Your task to perform on an android device: Open CNN.com Image 0: 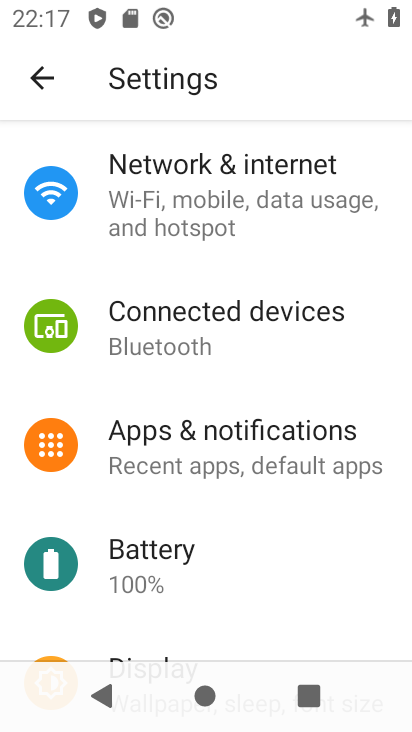
Step 0: press home button
Your task to perform on an android device: Open CNN.com Image 1: 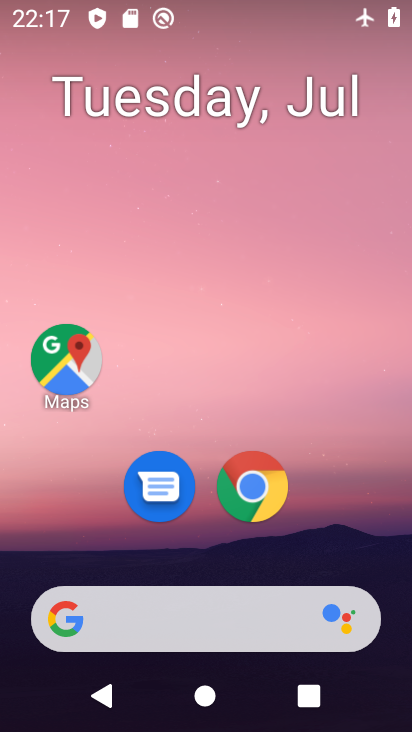
Step 1: drag from (334, 542) to (347, 132)
Your task to perform on an android device: Open CNN.com Image 2: 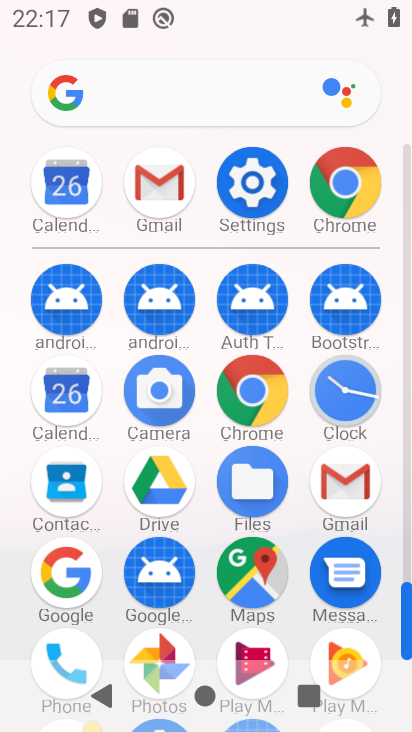
Step 2: click (255, 387)
Your task to perform on an android device: Open CNN.com Image 3: 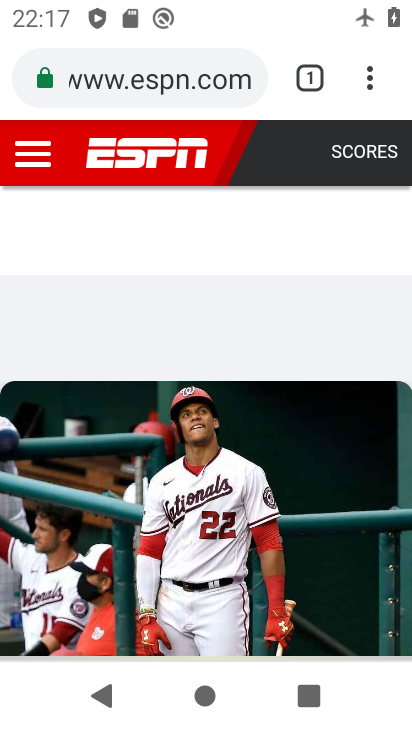
Step 3: click (201, 83)
Your task to perform on an android device: Open CNN.com Image 4: 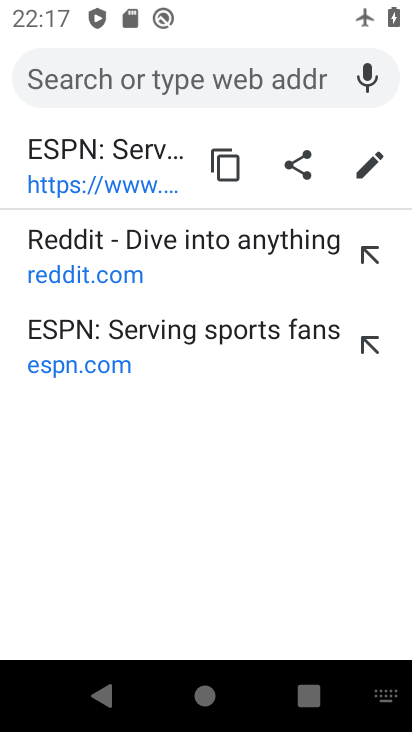
Step 4: type "cnn.com"
Your task to perform on an android device: Open CNN.com Image 5: 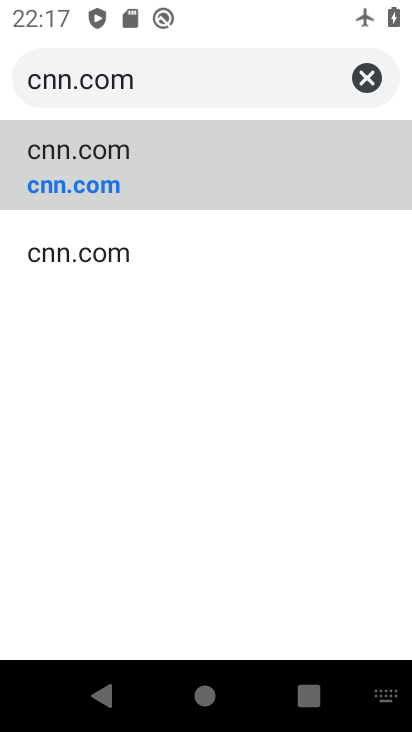
Step 5: click (339, 182)
Your task to perform on an android device: Open CNN.com Image 6: 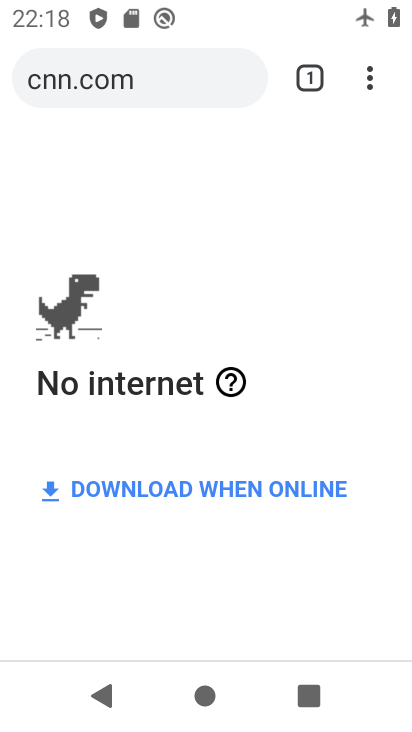
Step 6: task complete